Your task to perform on an android device: turn on bluetooth scan Image 0: 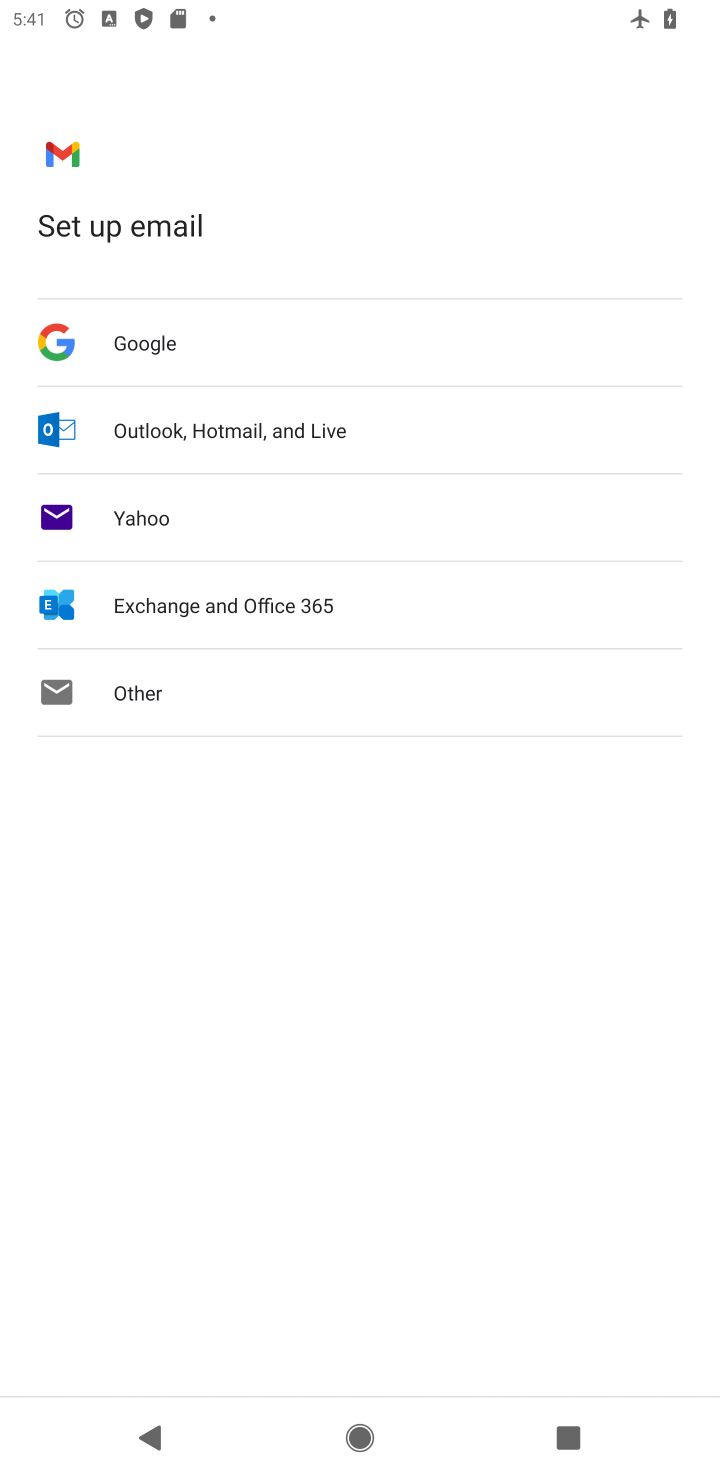
Step 0: press home button
Your task to perform on an android device: turn on bluetooth scan Image 1: 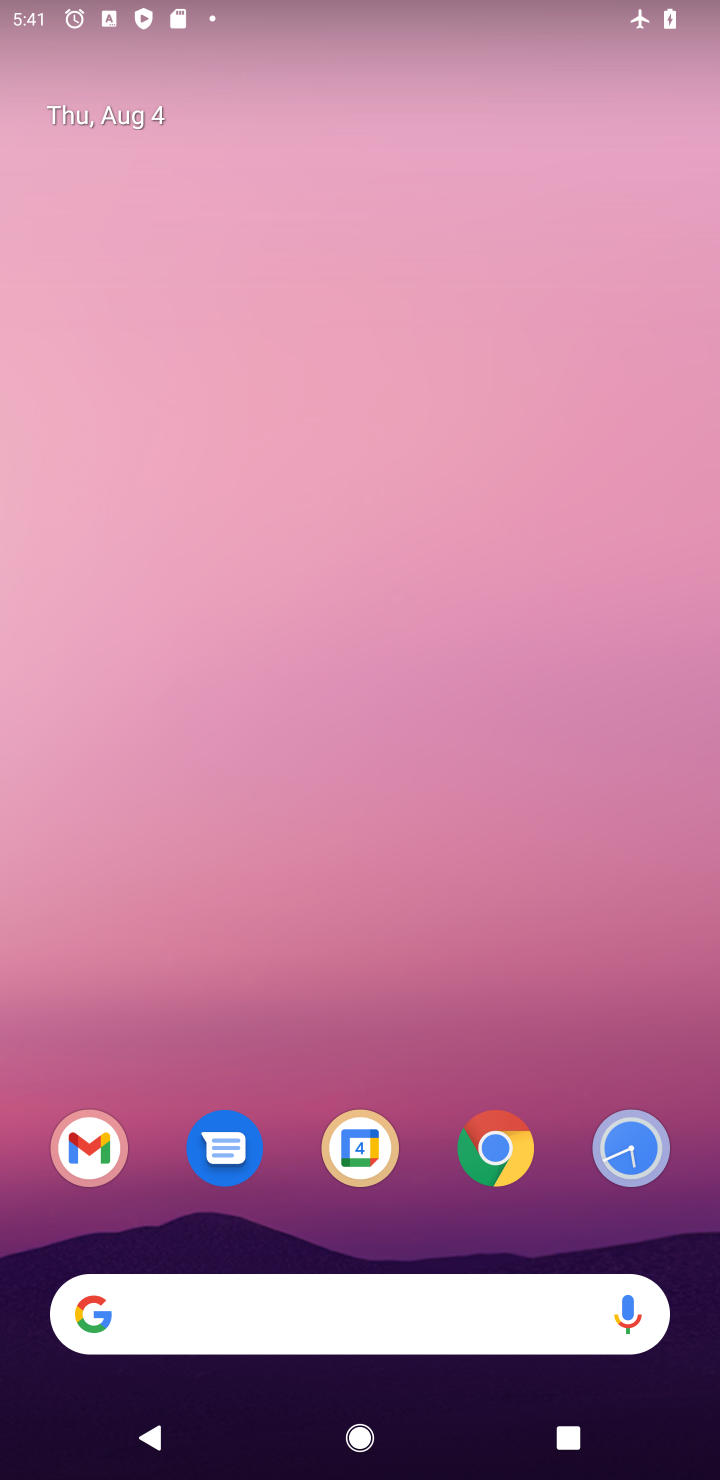
Step 1: drag from (570, 1216) to (512, 308)
Your task to perform on an android device: turn on bluetooth scan Image 2: 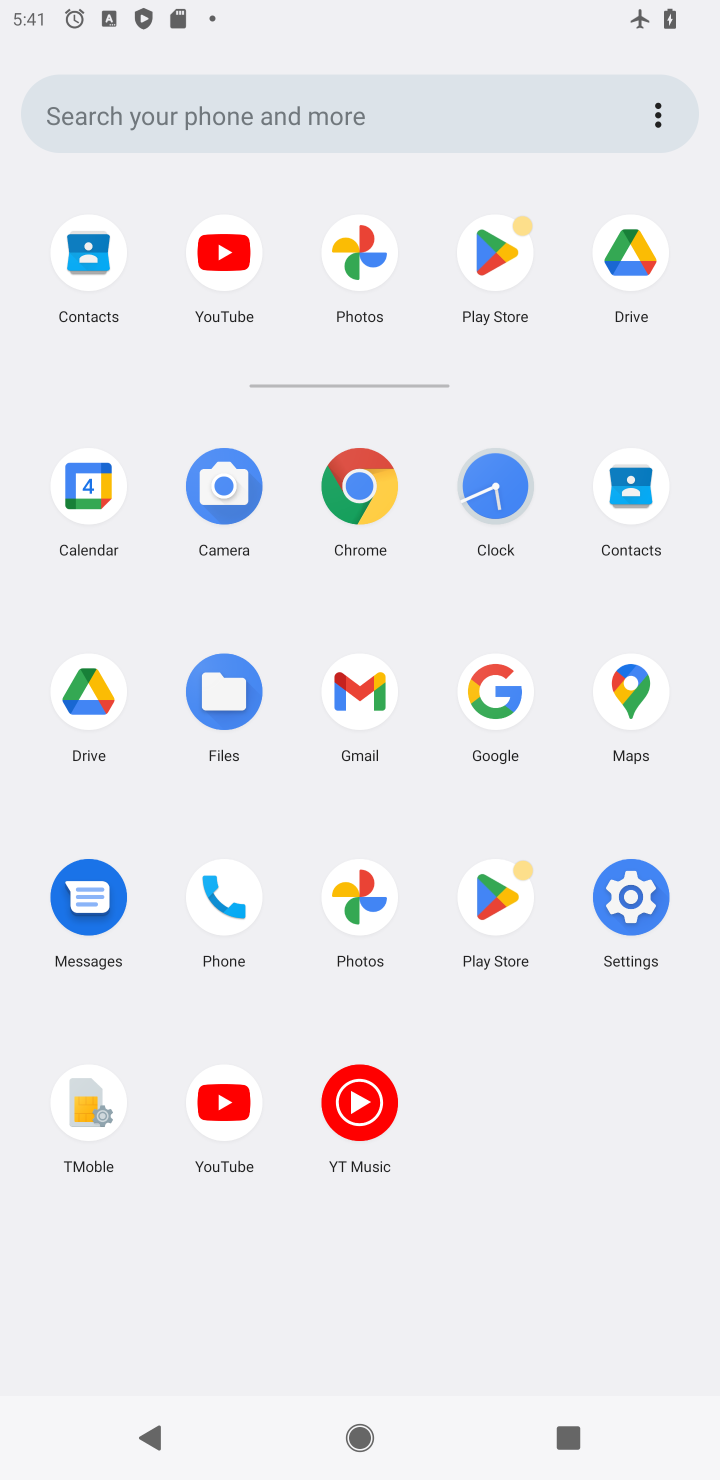
Step 2: click (627, 898)
Your task to perform on an android device: turn on bluetooth scan Image 3: 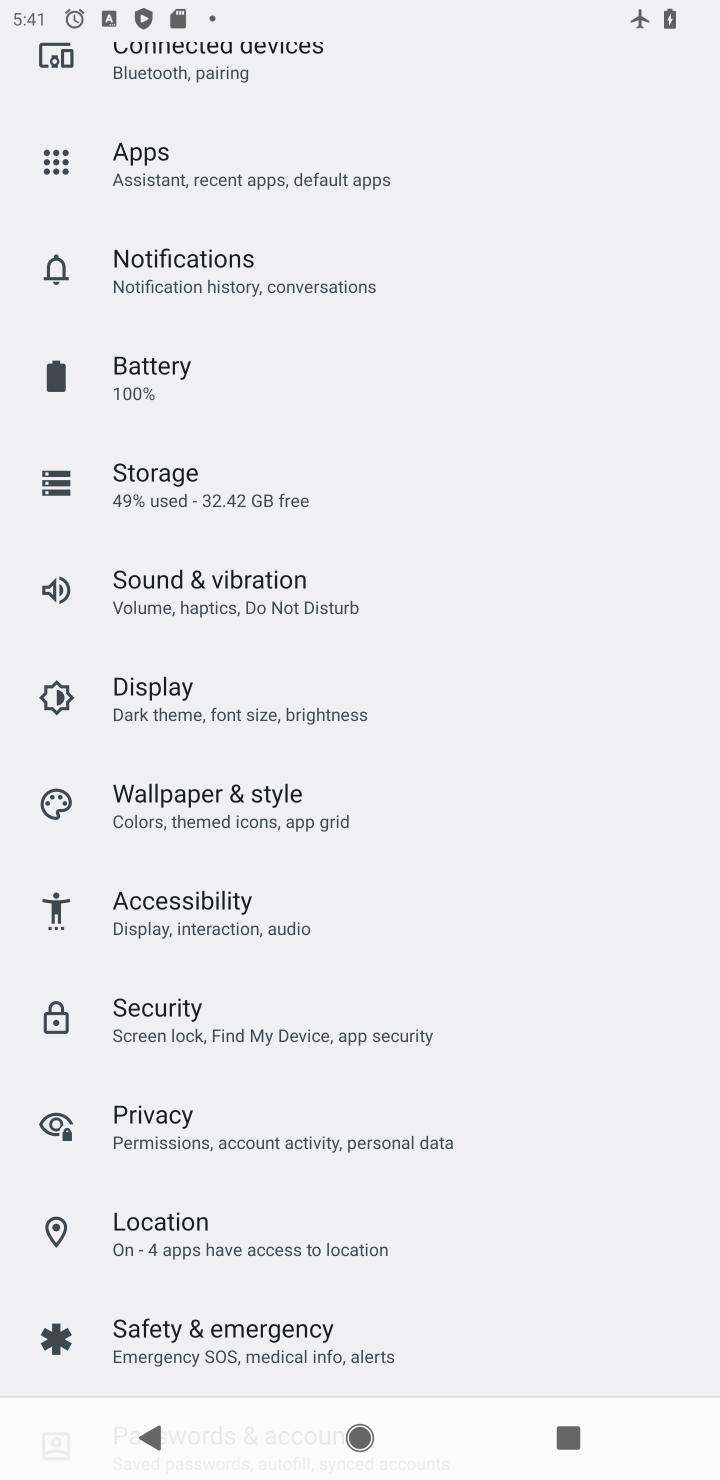
Step 3: drag from (454, 405) to (514, 882)
Your task to perform on an android device: turn on bluetooth scan Image 4: 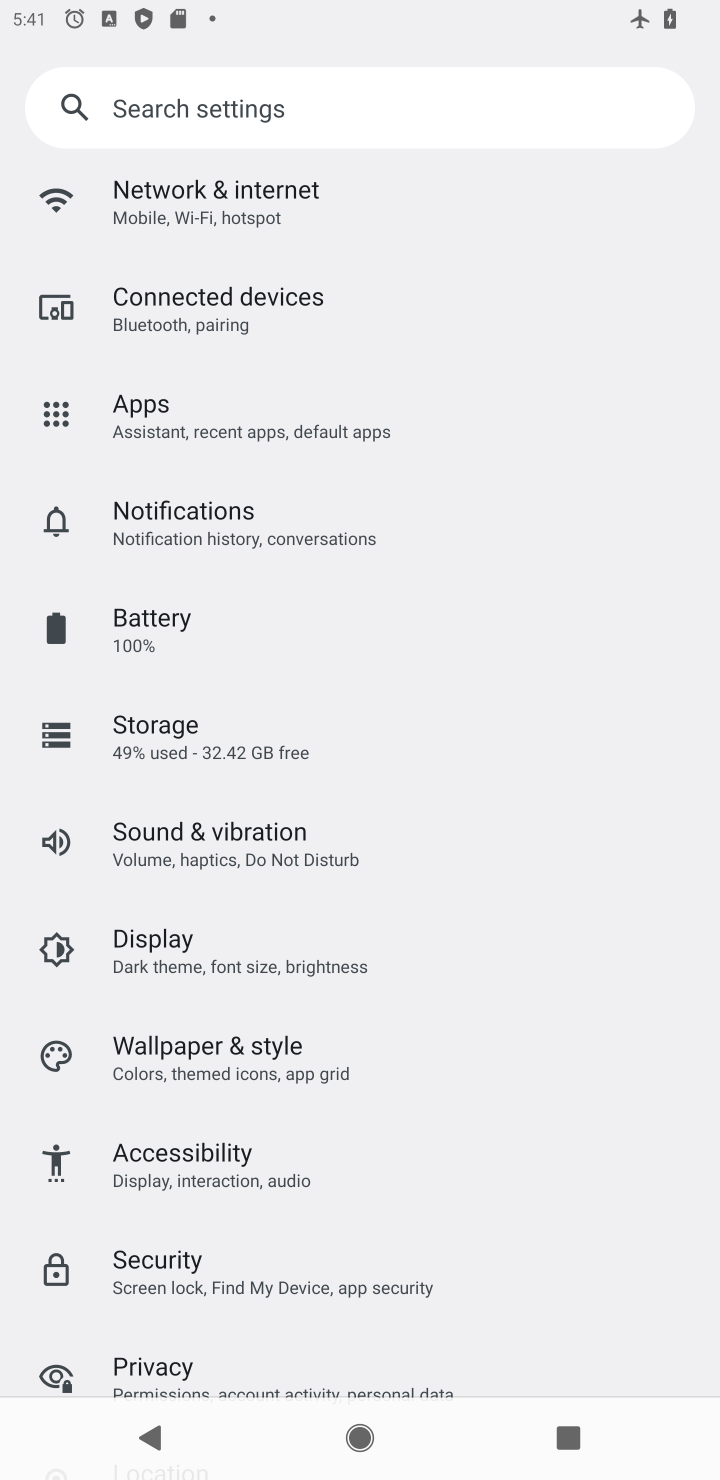
Step 4: drag from (507, 1273) to (473, 346)
Your task to perform on an android device: turn on bluetooth scan Image 5: 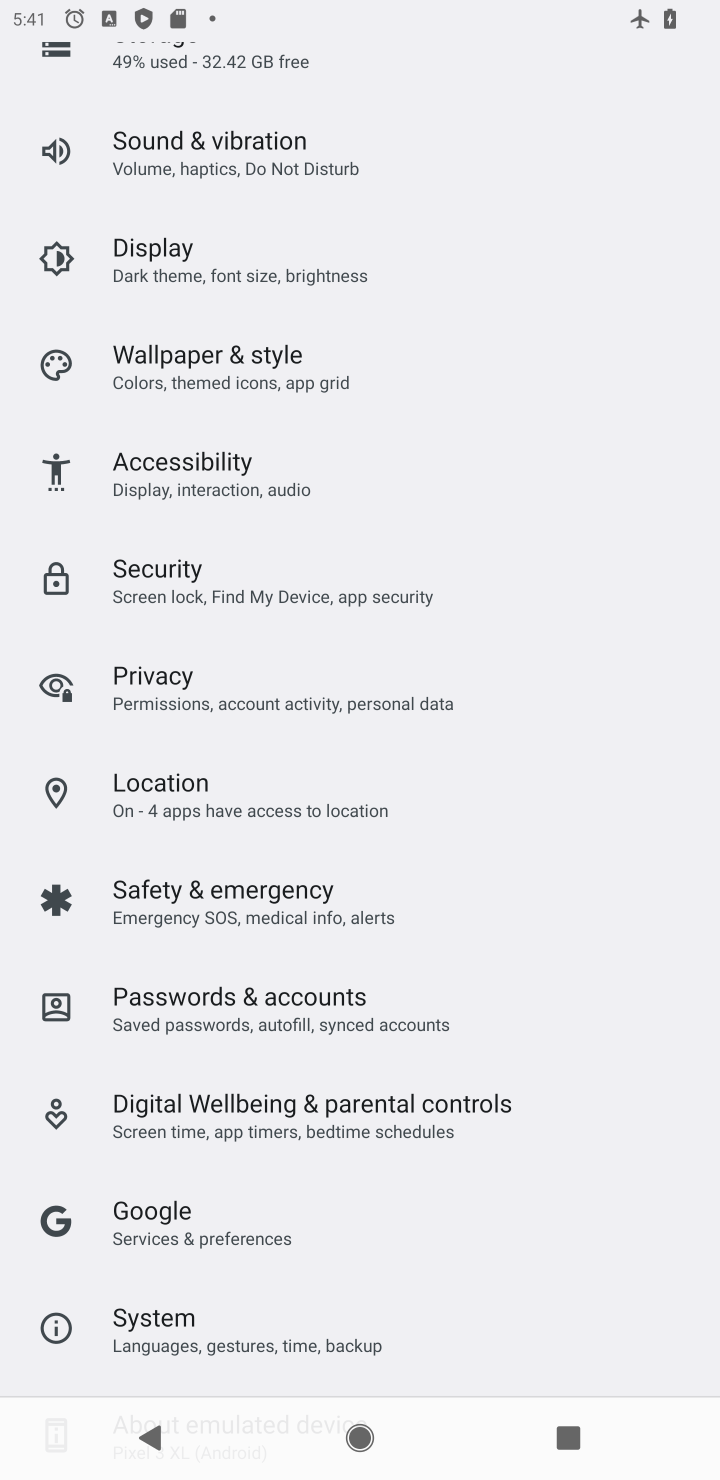
Step 5: click (173, 789)
Your task to perform on an android device: turn on bluetooth scan Image 6: 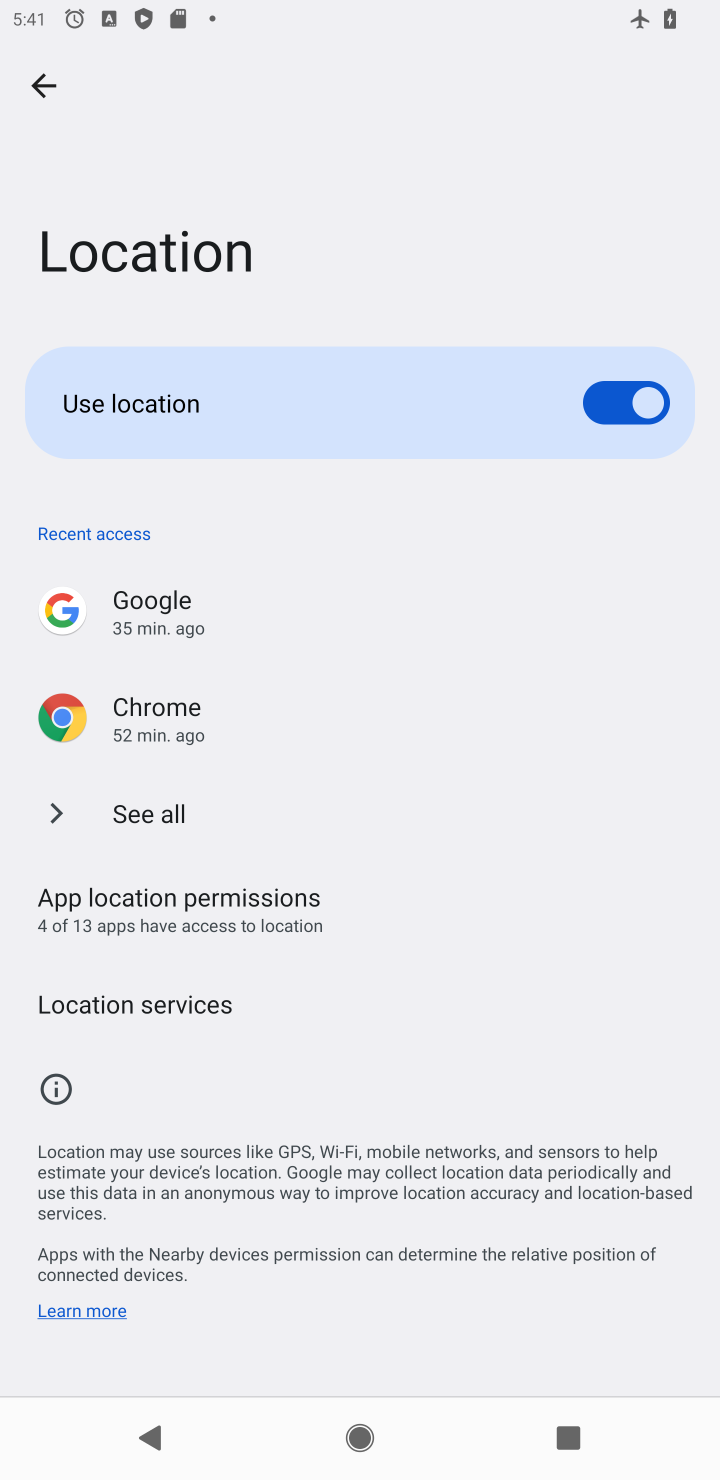
Step 6: click (128, 998)
Your task to perform on an android device: turn on bluetooth scan Image 7: 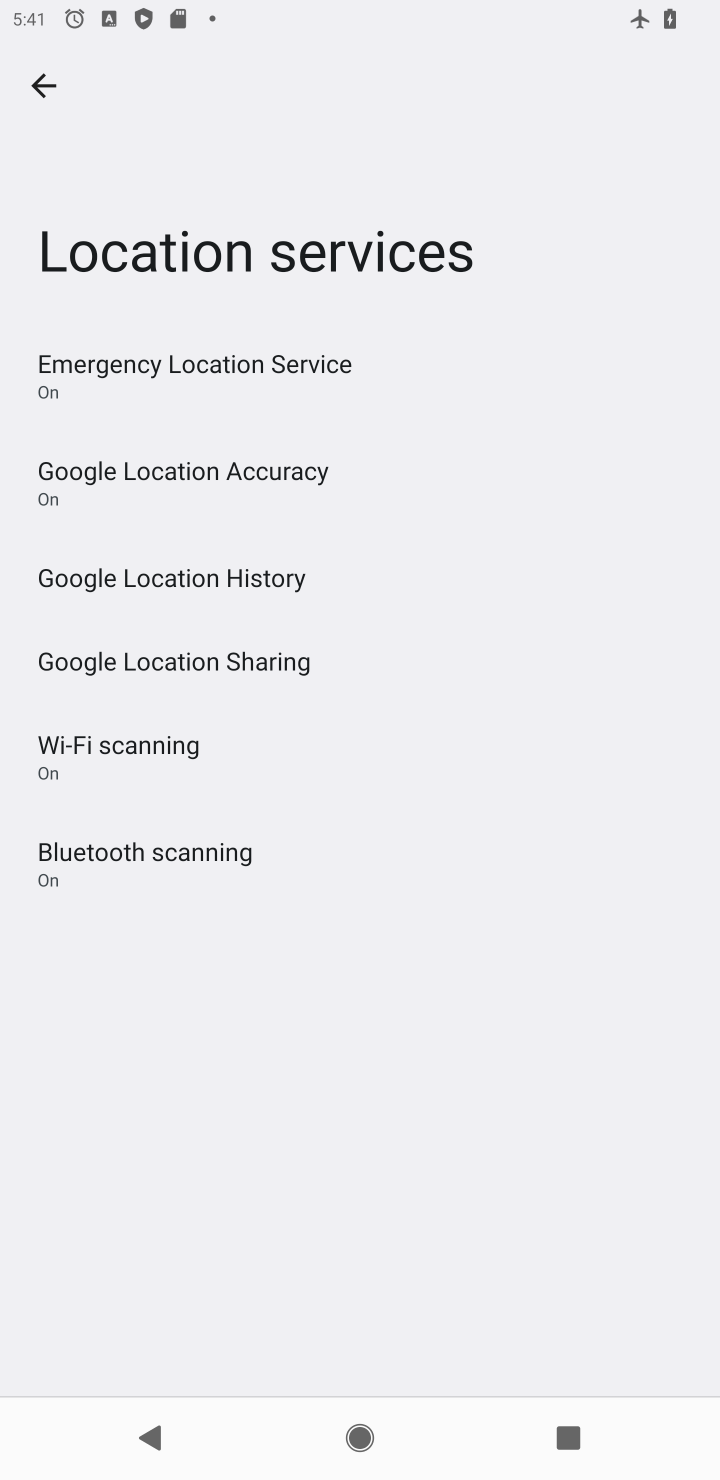
Step 7: click (166, 847)
Your task to perform on an android device: turn on bluetooth scan Image 8: 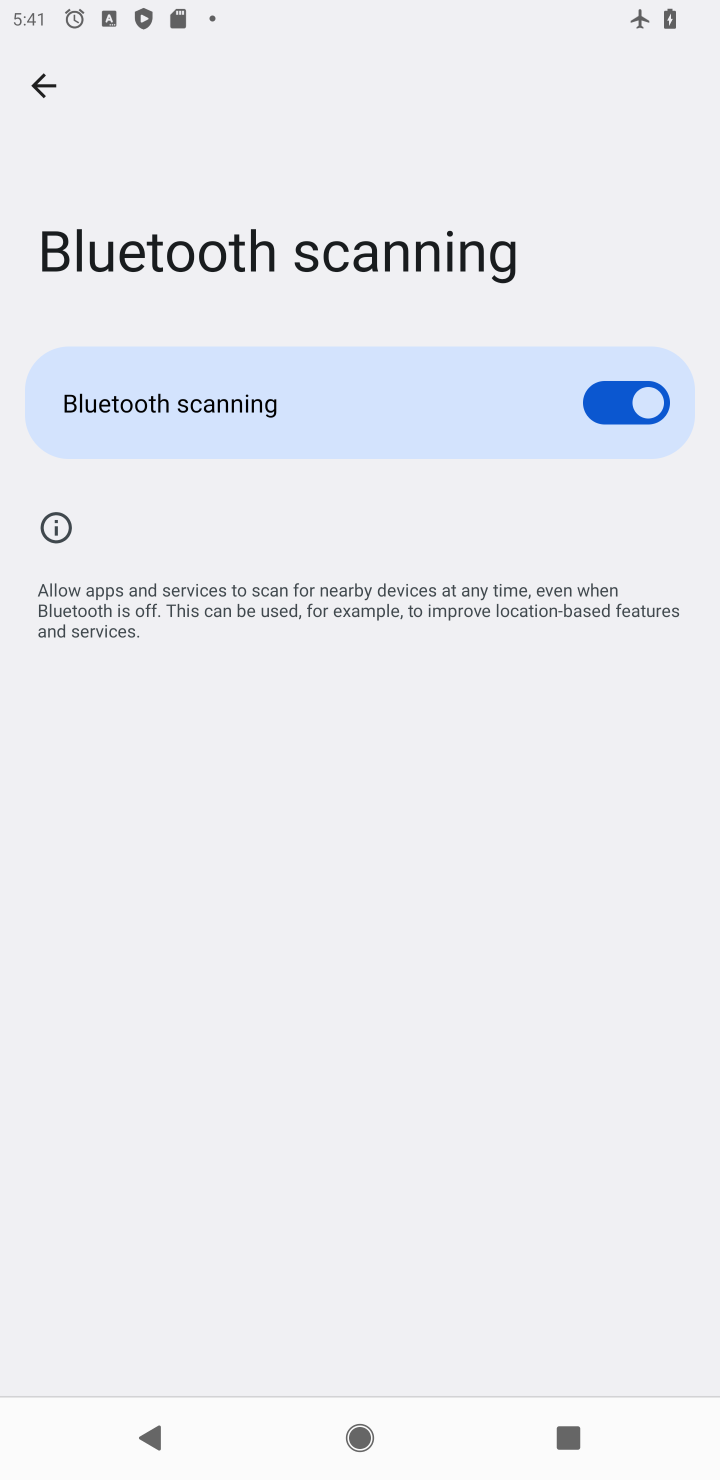
Step 8: task complete